Your task to perform on an android device: toggle show notifications on the lock screen Image 0: 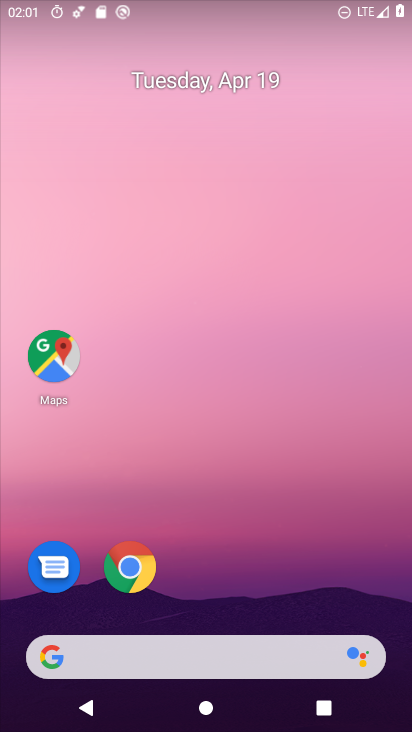
Step 0: drag from (317, 581) to (218, 109)
Your task to perform on an android device: toggle show notifications on the lock screen Image 1: 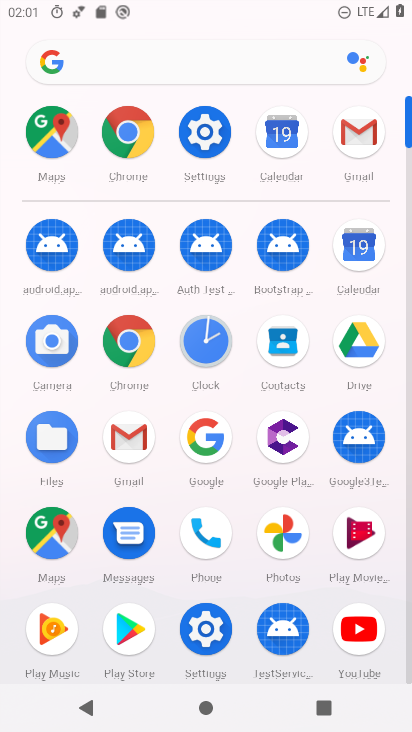
Step 1: click (202, 128)
Your task to perform on an android device: toggle show notifications on the lock screen Image 2: 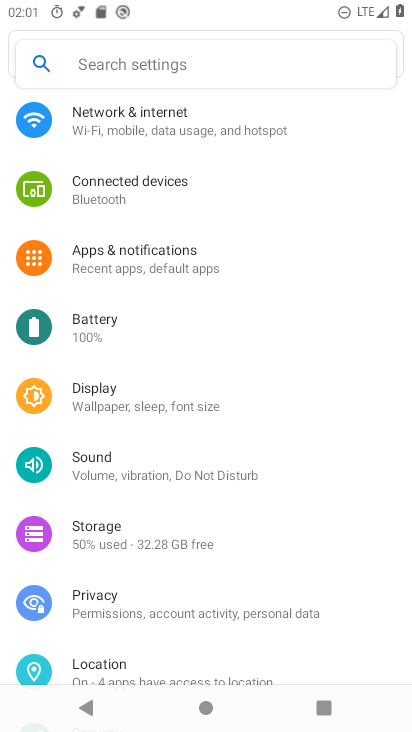
Step 2: click (145, 266)
Your task to perform on an android device: toggle show notifications on the lock screen Image 3: 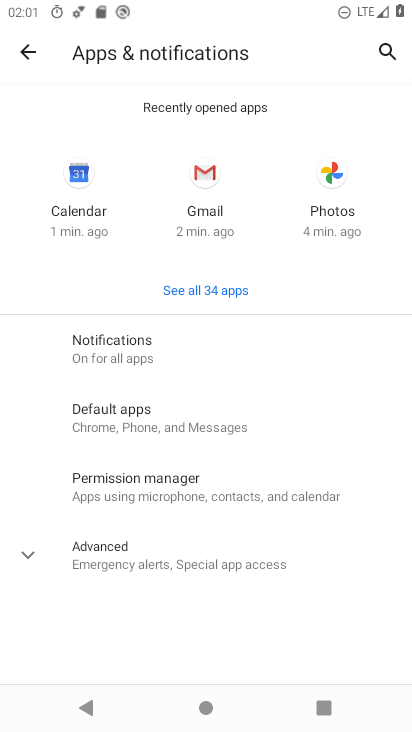
Step 3: click (140, 359)
Your task to perform on an android device: toggle show notifications on the lock screen Image 4: 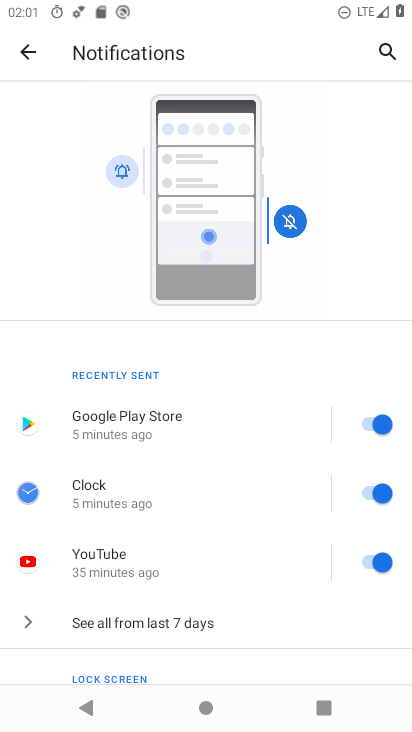
Step 4: drag from (217, 525) to (195, 7)
Your task to perform on an android device: toggle show notifications on the lock screen Image 5: 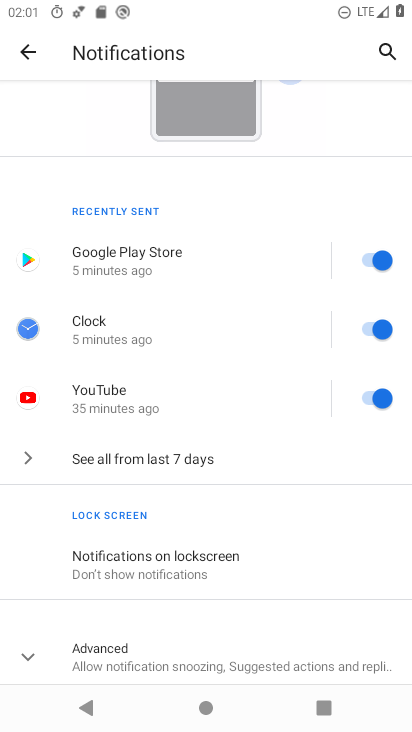
Step 5: click (183, 561)
Your task to perform on an android device: toggle show notifications on the lock screen Image 6: 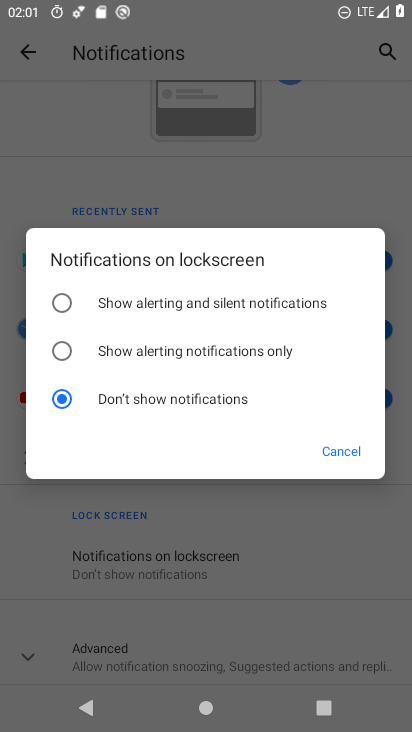
Step 6: click (215, 350)
Your task to perform on an android device: toggle show notifications on the lock screen Image 7: 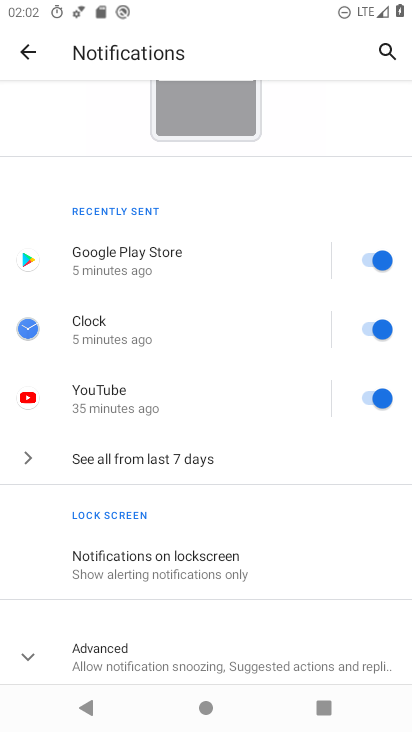
Step 7: task complete